Your task to perform on an android device: check google app version Image 0: 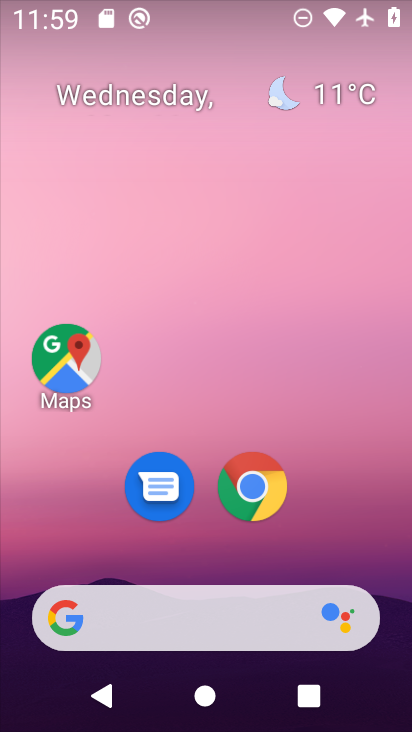
Step 0: drag from (334, 510) to (267, 13)
Your task to perform on an android device: check google app version Image 1: 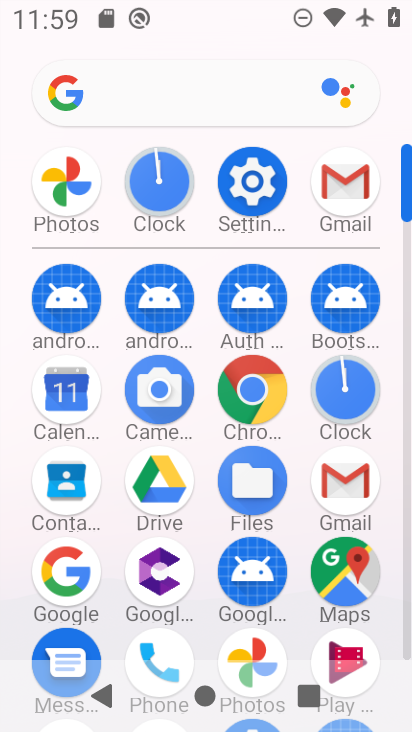
Step 1: drag from (21, 616) to (24, 354)
Your task to perform on an android device: check google app version Image 2: 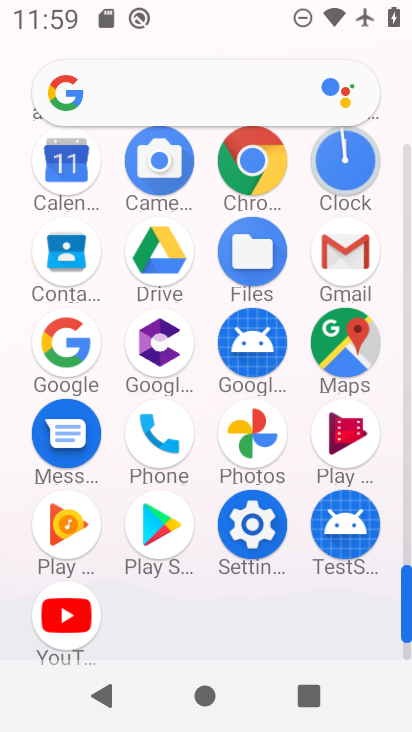
Step 2: click (59, 337)
Your task to perform on an android device: check google app version Image 3: 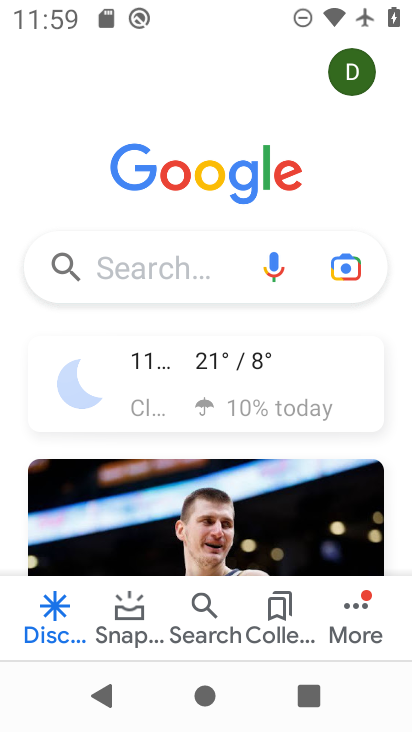
Step 3: click (353, 606)
Your task to perform on an android device: check google app version Image 4: 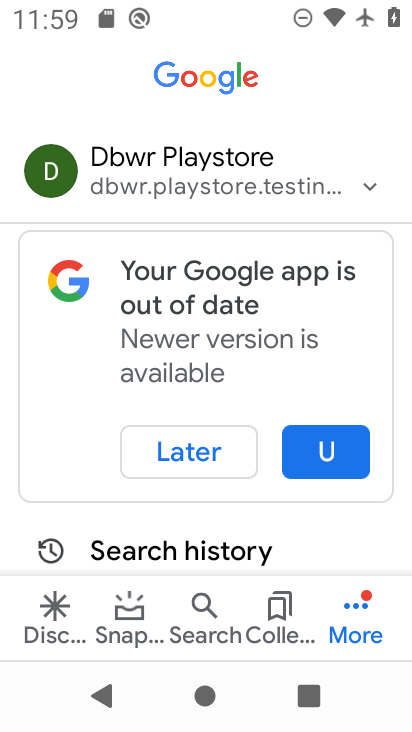
Step 4: drag from (254, 514) to (250, 199)
Your task to perform on an android device: check google app version Image 5: 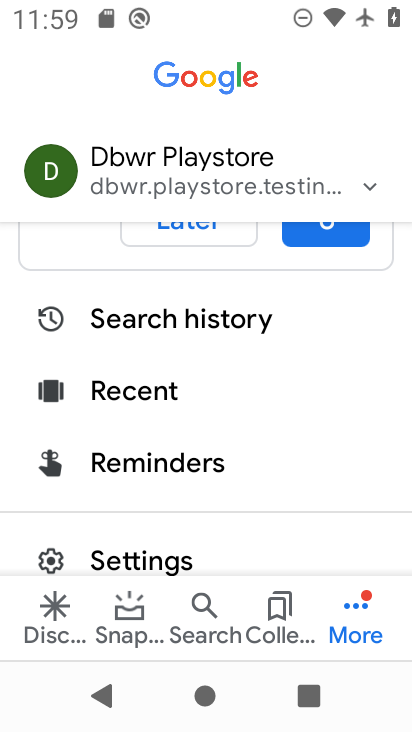
Step 5: drag from (210, 563) to (219, 333)
Your task to perform on an android device: check google app version Image 6: 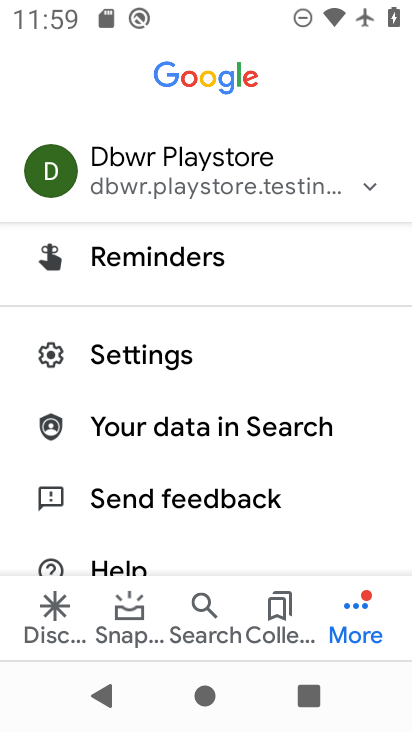
Step 6: click (171, 355)
Your task to perform on an android device: check google app version Image 7: 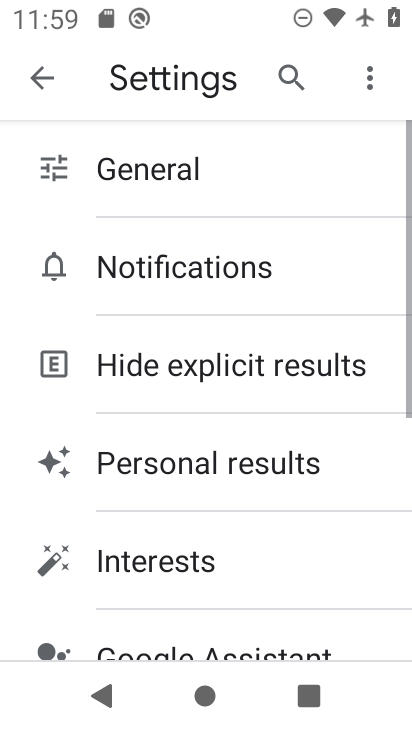
Step 7: drag from (271, 612) to (293, 226)
Your task to perform on an android device: check google app version Image 8: 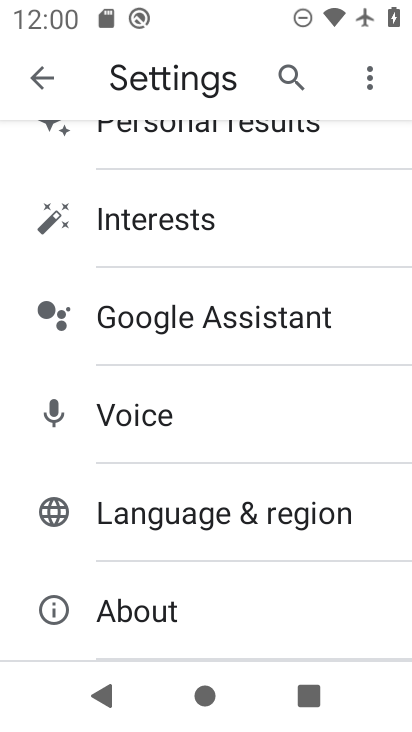
Step 8: click (202, 602)
Your task to perform on an android device: check google app version Image 9: 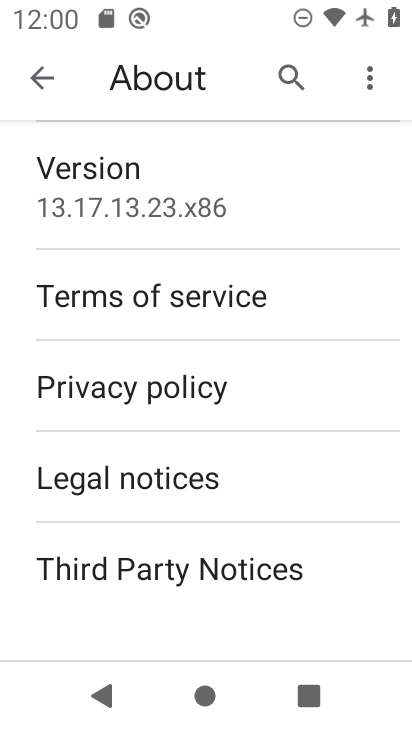
Step 9: task complete